Your task to perform on an android device: Open maps Image 0: 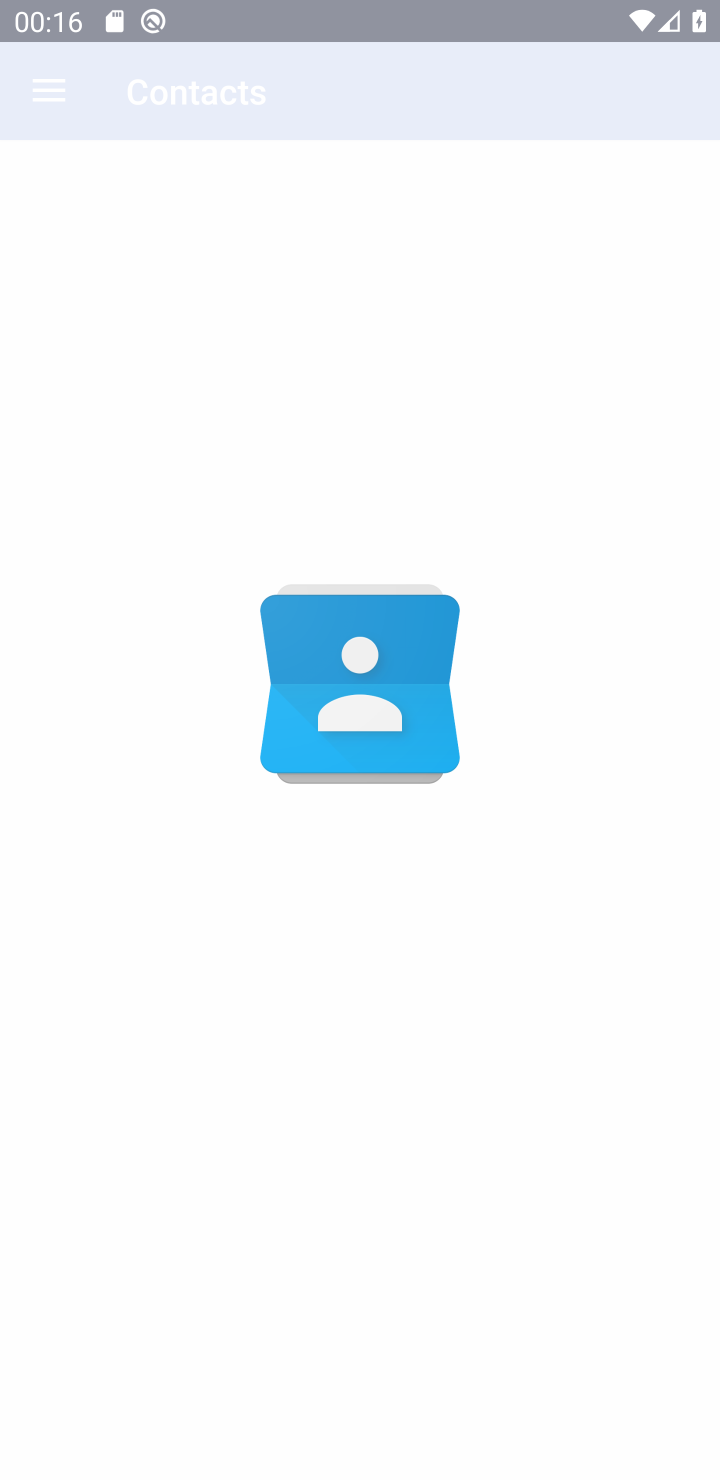
Step 0: click (68, 90)
Your task to perform on an android device: Open maps Image 1: 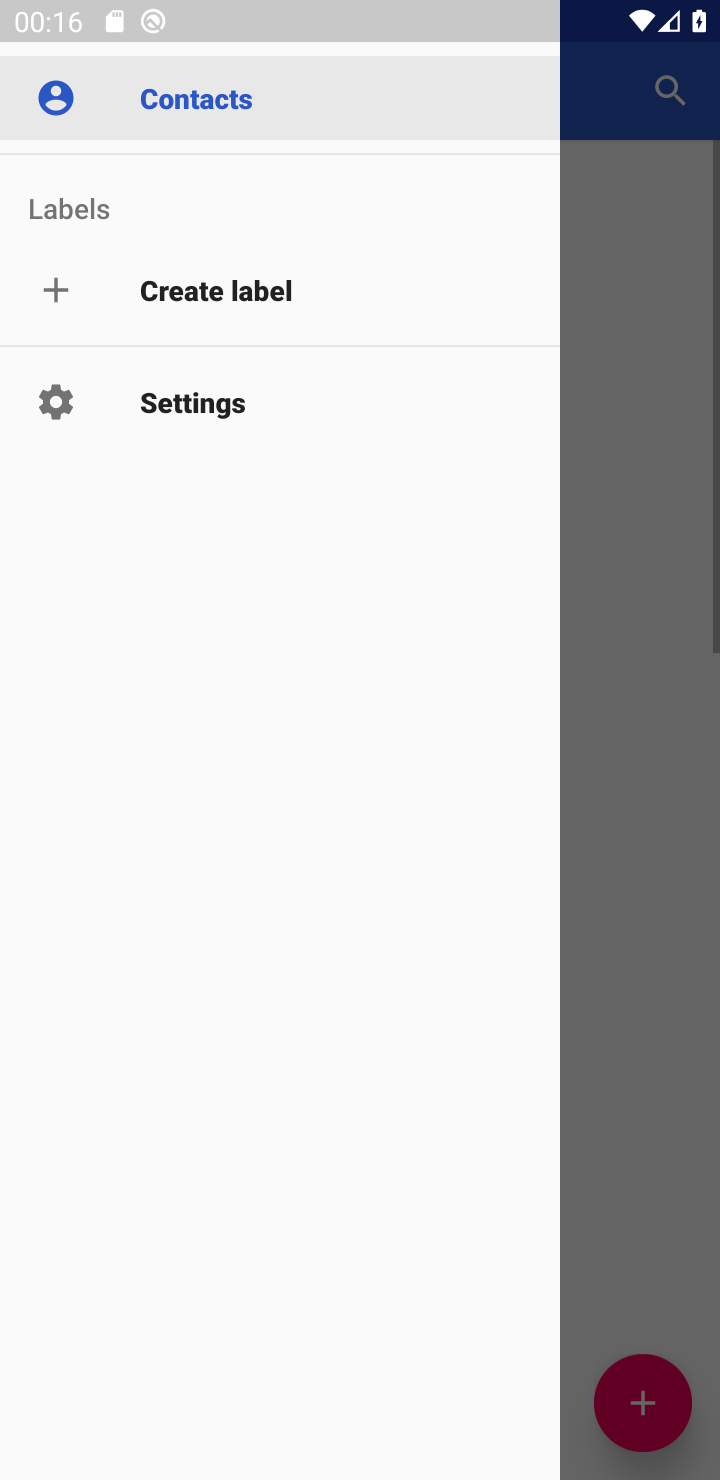
Step 1: press home button
Your task to perform on an android device: Open maps Image 2: 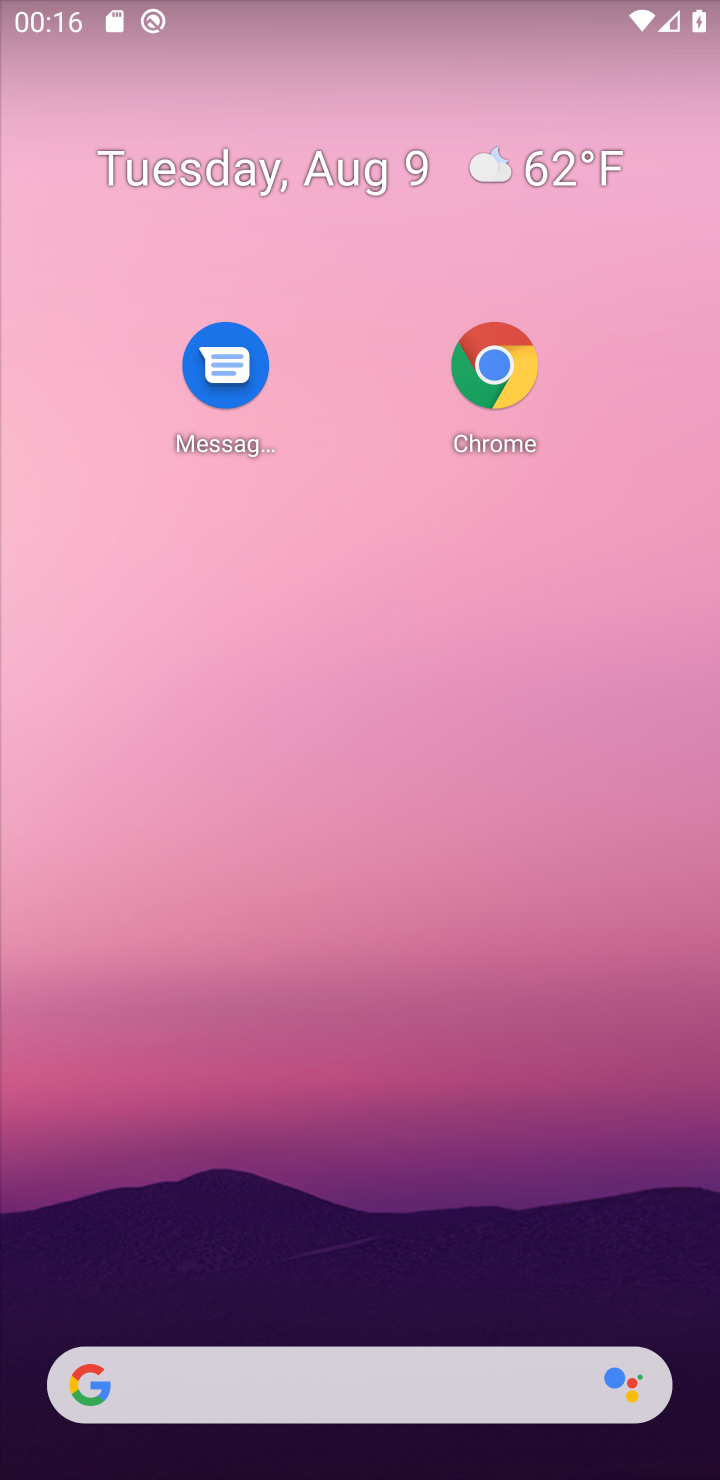
Step 2: drag from (445, 603) to (468, 352)
Your task to perform on an android device: Open maps Image 3: 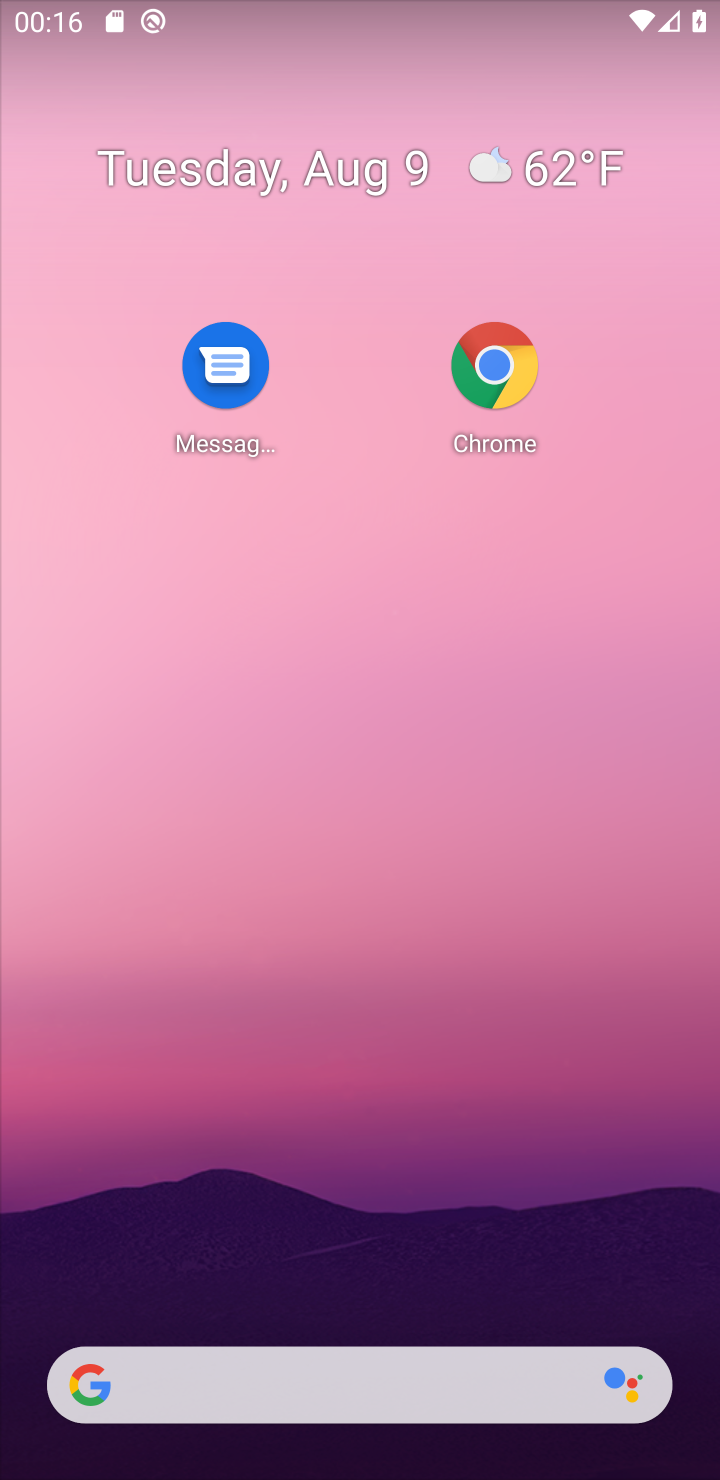
Step 3: drag from (409, 1152) to (437, 352)
Your task to perform on an android device: Open maps Image 4: 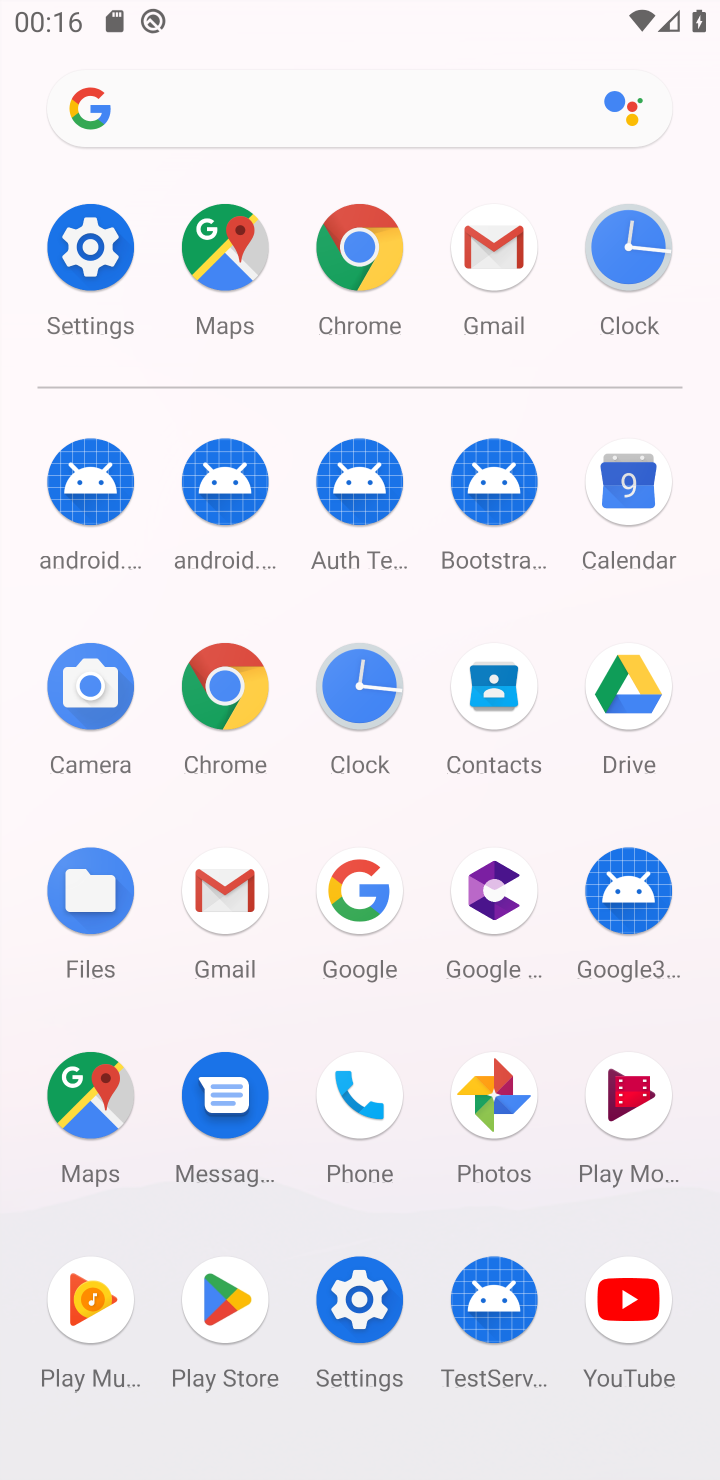
Step 4: click (87, 1105)
Your task to perform on an android device: Open maps Image 5: 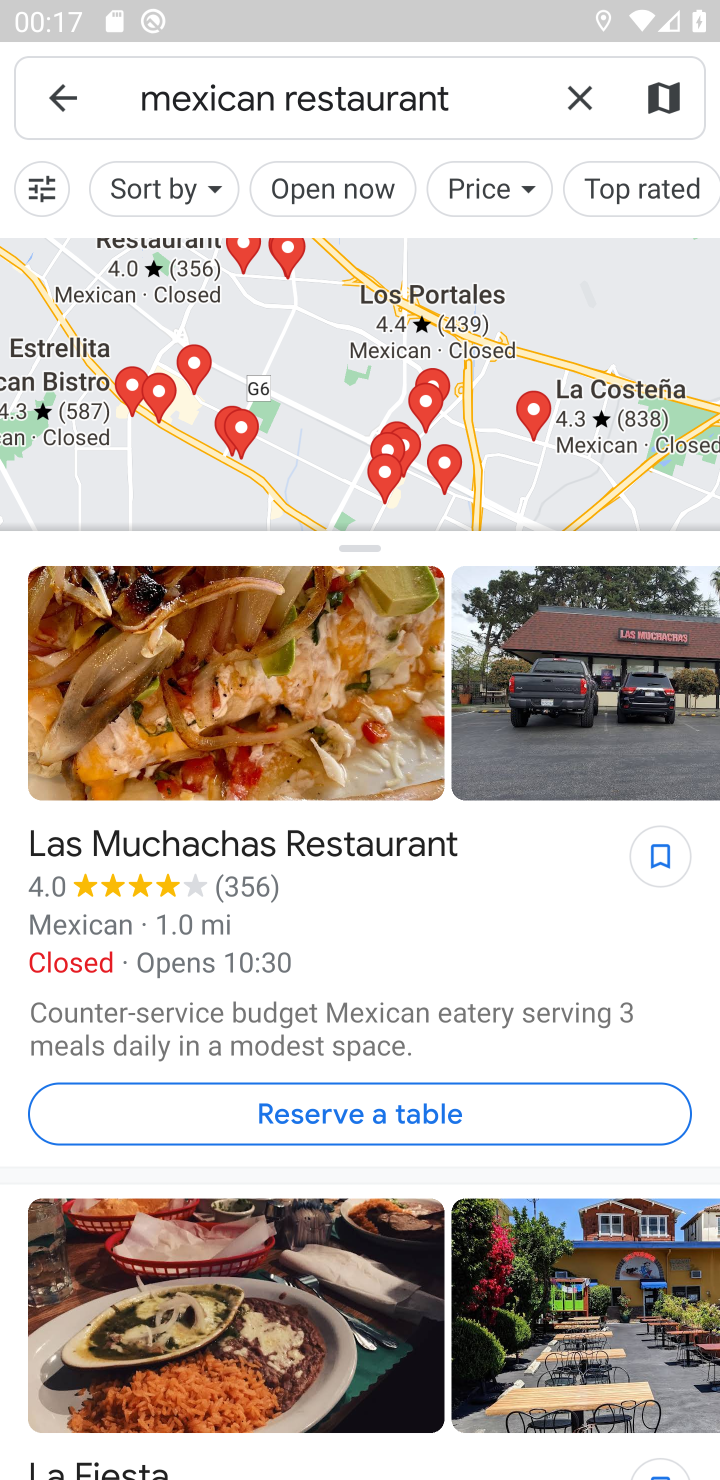
Step 5: task complete